Your task to perform on an android device: Open Yahoo.com Image 0: 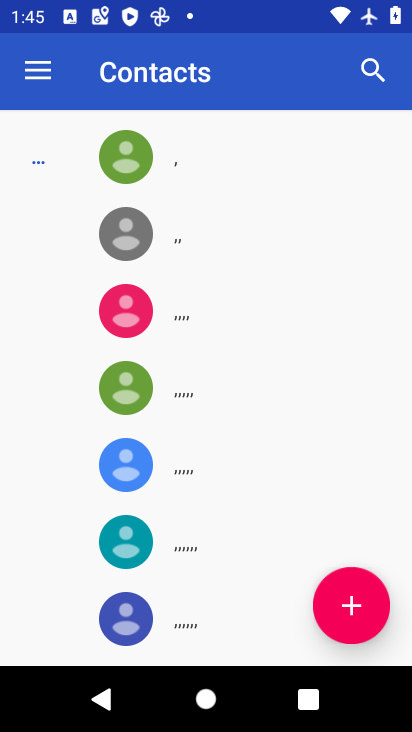
Step 0: press home button
Your task to perform on an android device: Open Yahoo.com Image 1: 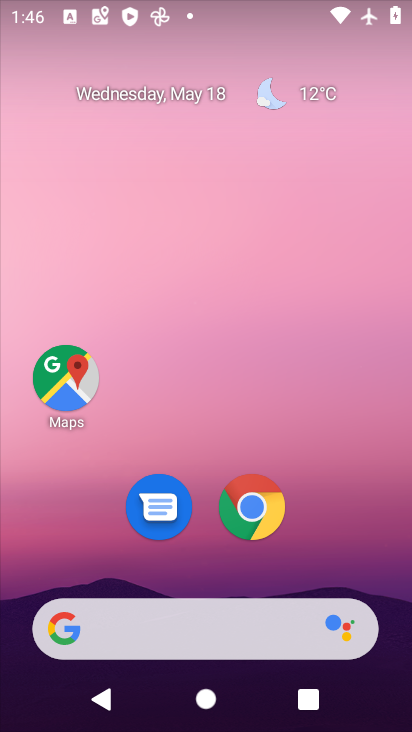
Step 1: click (252, 499)
Your task to perform on an android device: Open Yahoo.com Image 2: 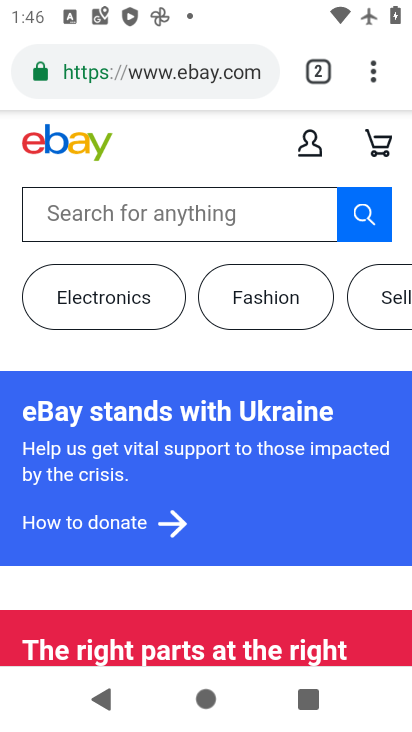
Step 2: click (163, 72)
Your task to perform on an android device: Open Yahoo.com Image 3: 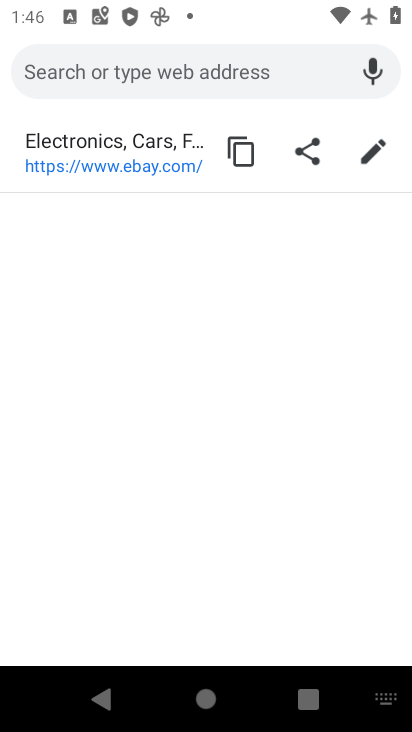
Step 3: type "yahoo"
Your task to perform on an android device: Open Yahoo.com Image 4: 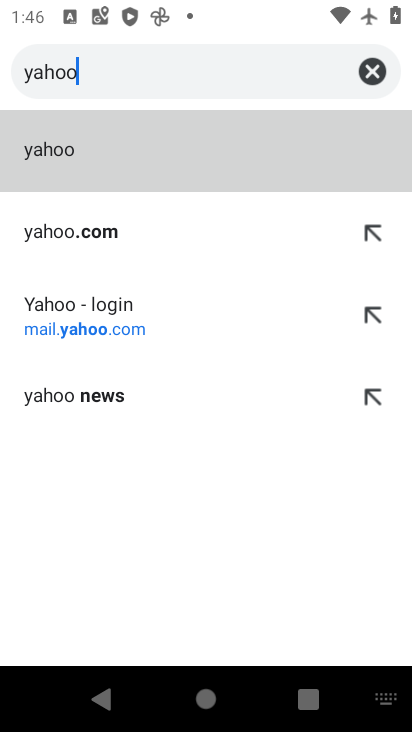
Step 4: click (78, 171)
Your task to perform on an android device: Open Yahoo.com Image 5: 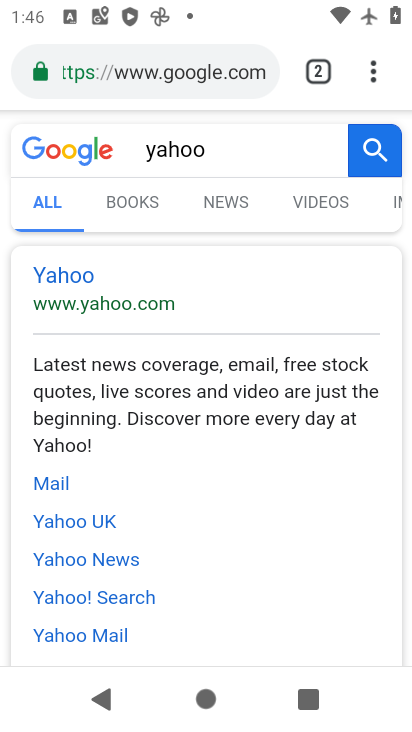
Step 5: click (84, 280)
Your task to perform on an android device: Open Yahoo.com Image 6: 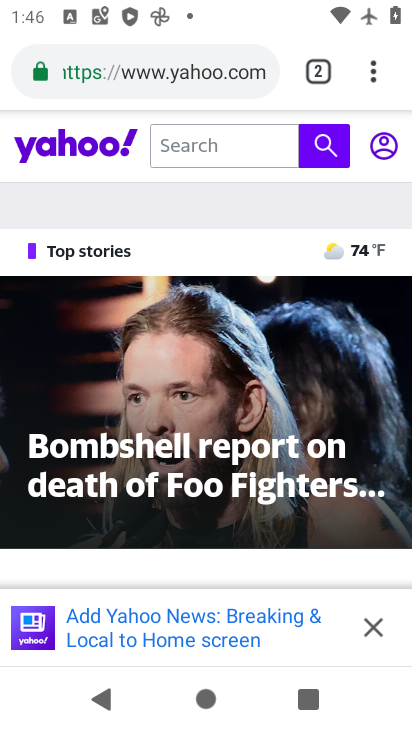
Step 6: task complete